Your task to perform on an android device: toggle improve location accuracy Image 0: 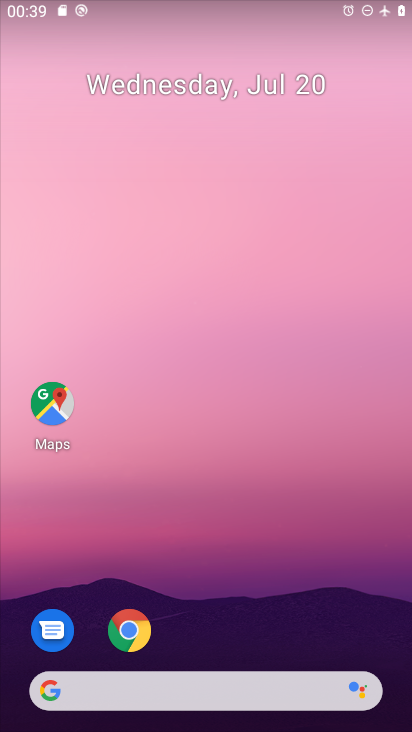
Step 0: drag from (175, 614) to (176, 101)
Your task to perform on an android device: toggle improve location accuracy Image 1: 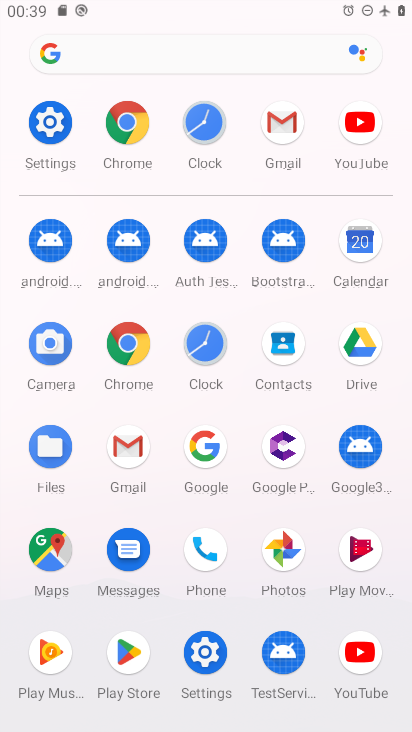
Step 1: click (66, 149)
Your task to perform on an android device: toggle improve location accuracy Image 2: 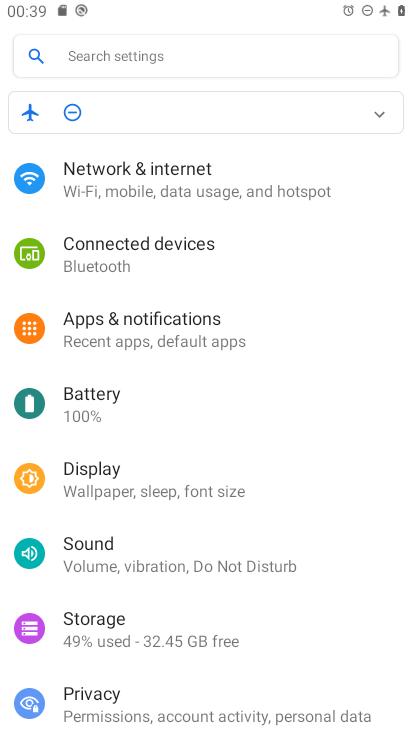
Step 2: drag from (223, 617) to (229, 299)
Your task to perform on an android device: toggle improve location accuracy Image 3: 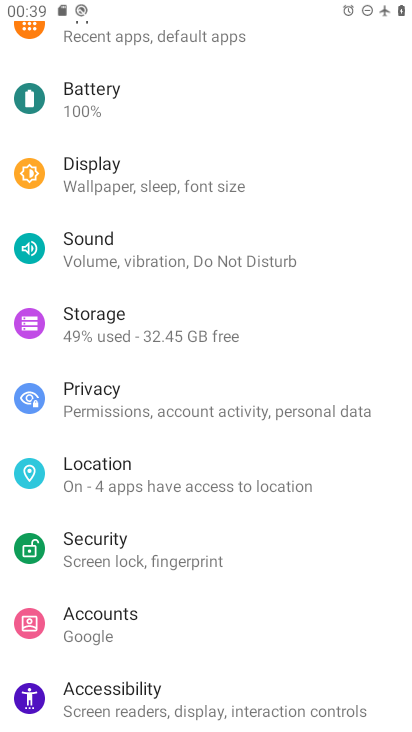
Step 3: click (150, 497)
Your task to perform on an android device: toggle improve location accuracy Image 4: 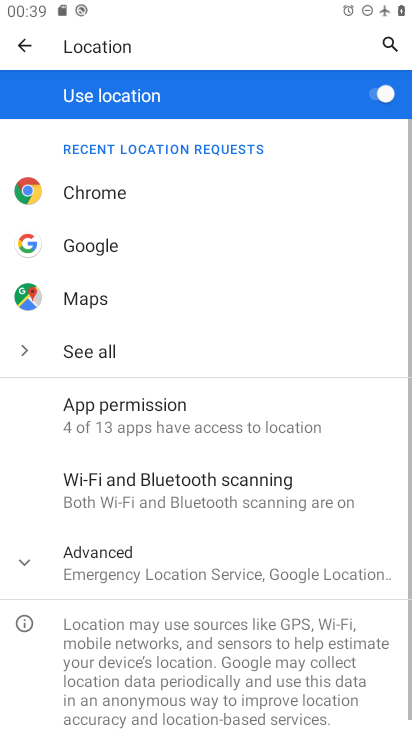
Step 4: click (177, 566)
Your task to perform on an android device: toggle improve location accuracy Image 5: 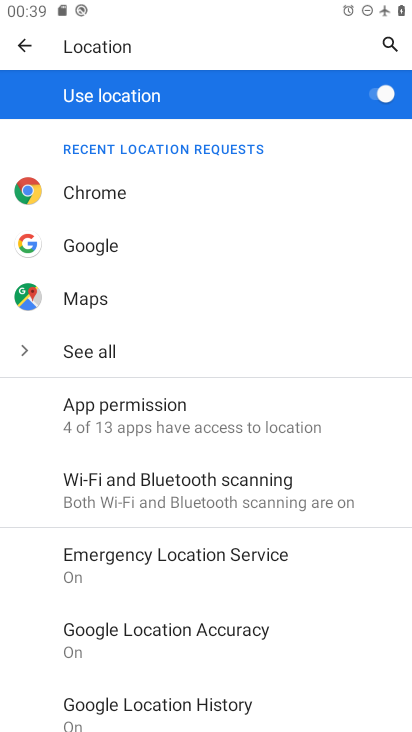
Step 5: click (222, 637)
Your task to perform on an android device: toggle improve location accuracy Image 6: 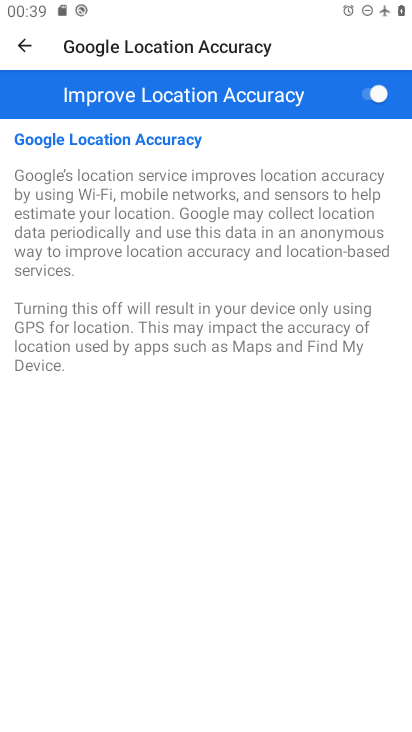
Step 6: click (376, 93)
Your task to perform on an android device: toggle improve location accuracy Image 7: 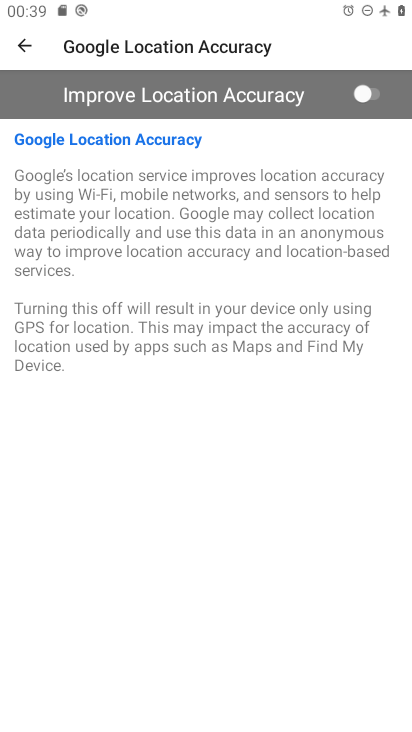
Step 7: task complete